Your task to perform on an android device: turn vacation reply on in the gmail app Image 0: 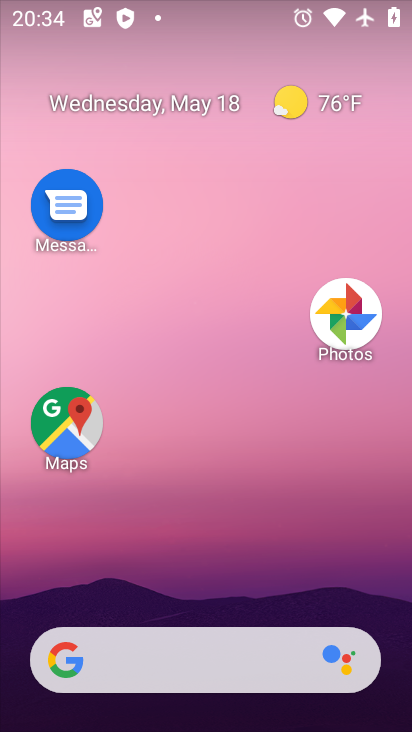
Step 0: drag from (204, 609) to (121, 63)
Your task to perform on an android device: turn vacation reply on in the gmail app Image 1: 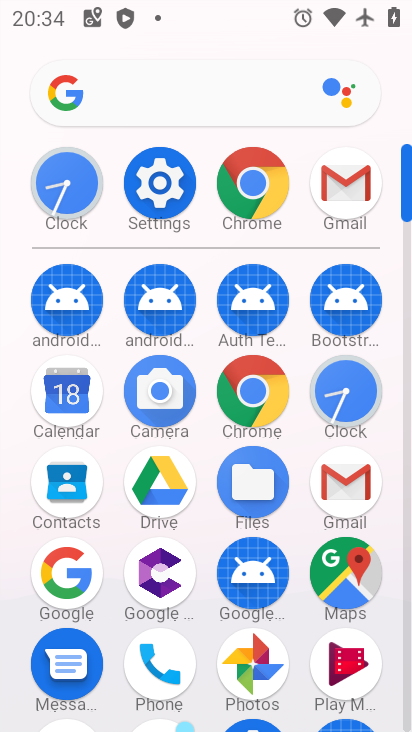
Step 1: click (315, 480)
Your task to perform on an android device: turn vacation reply on in the gmail app Image 2: 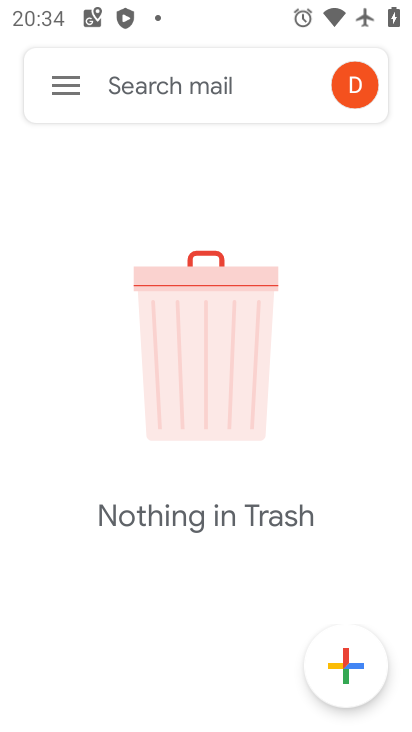
Step 2: click (44, 73)
Your task to perform on an android device: turn vacation reply on in the gmail app Image 3: 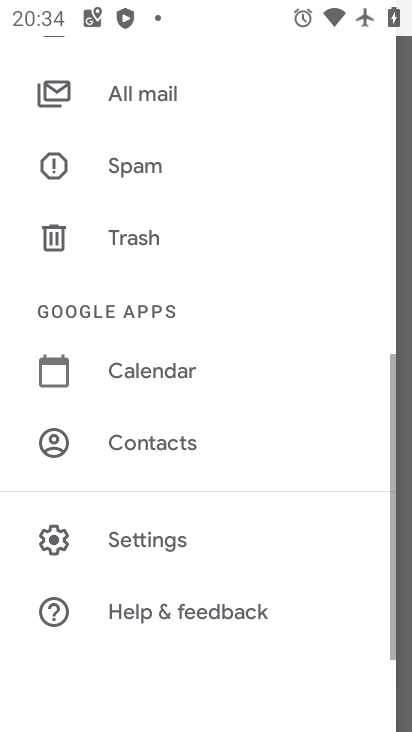
Step 3: click (133, 567)
Your task to perform on an android device: turn vacation reply on in the gmail app Image 4: 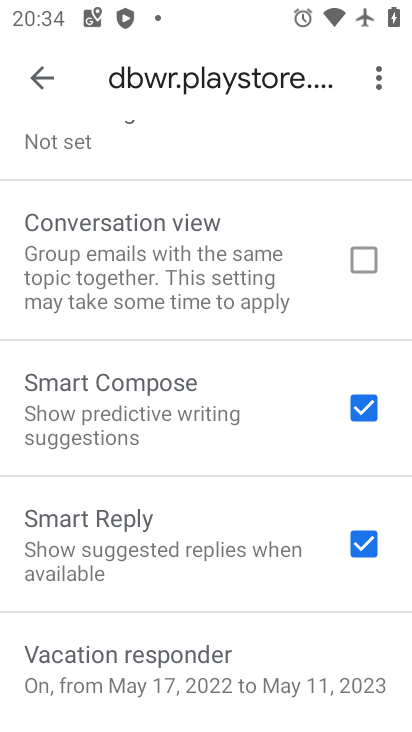
Step 4: click (185, 664)
Your task to perform on an android device: turn vacation reply on in the gmail app Image 5: 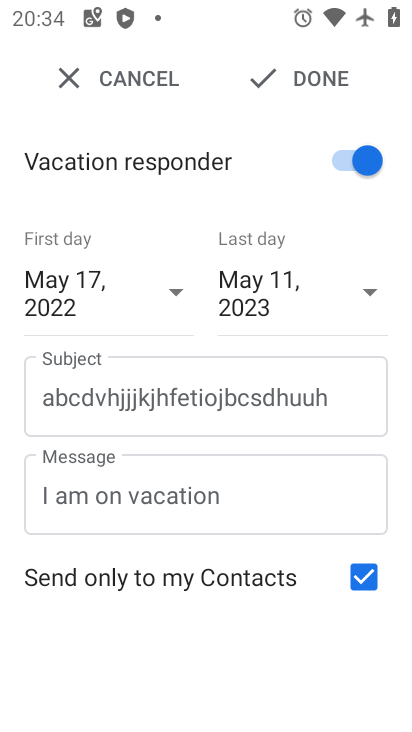
Step 5: click (343, 77)
Your task to perform on an android device: turn vacation reply on in the gmail app Image 6: 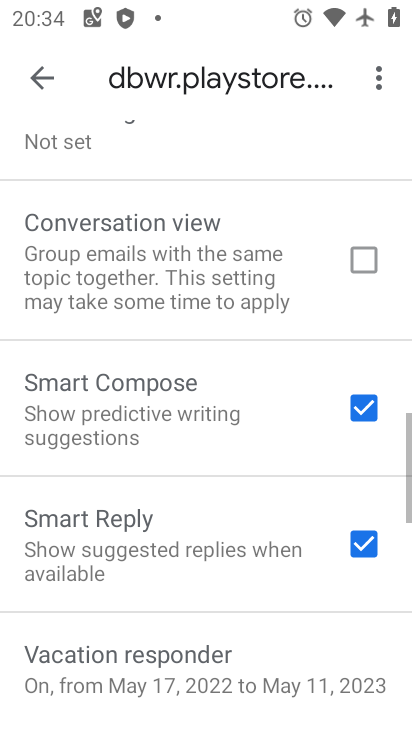
Step 6: task complete